Your task to perform on an android device: toggle airplane mode Image 0: 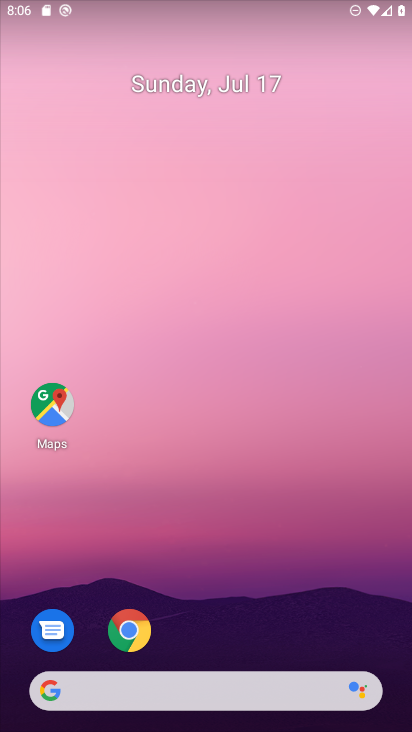
Step 0: drag from (233, 660) to (227, 217)
Your task to perform on an android device: toggle airplane mode Image 1: 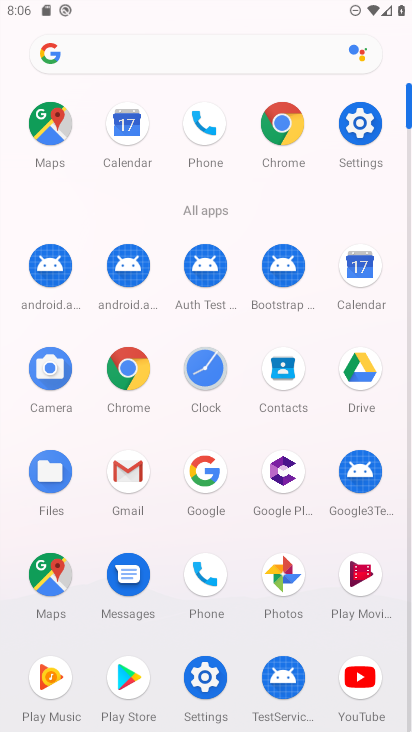
Step 1: click (356, 132)
Your task to perform on an android device: toggle airplane mode Image 2: 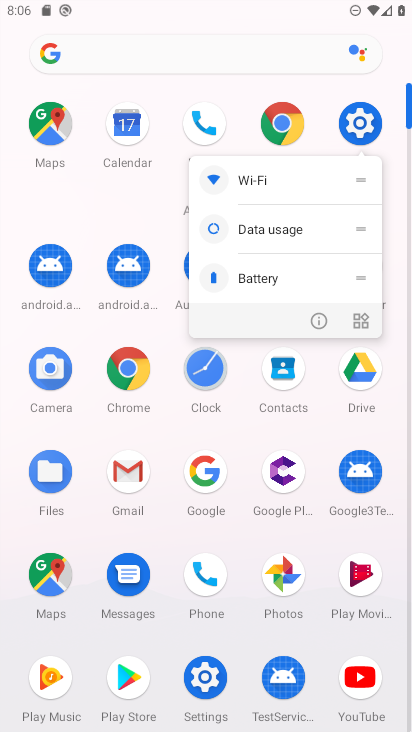
Step 2: click (356, 132)
Your task to perform on an android device: toggle airplane mode Image 3: 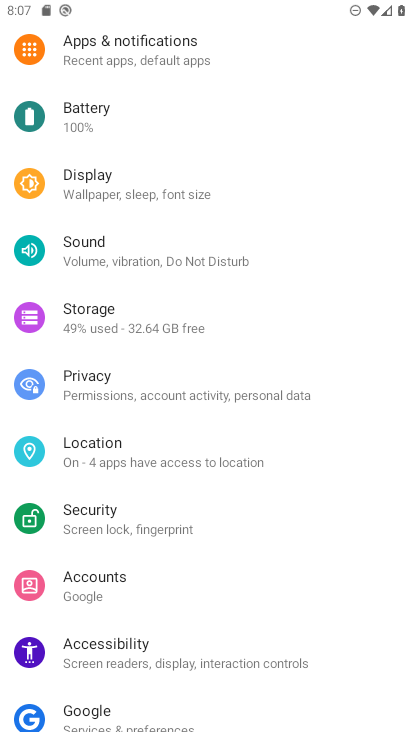
Step 3: drag from (154, 113) to (192, 441)
Your task to perform on an android device: toggle airplane mode Image 4: 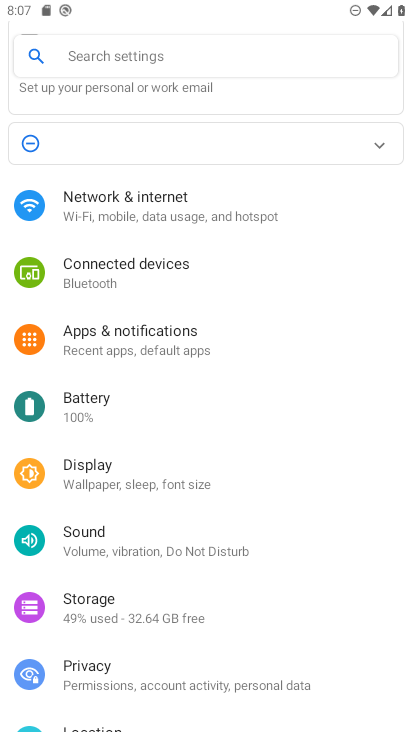
Step 4: click (189, 220)
Your task to perform on an android device: toggle airplane mode Image 5: 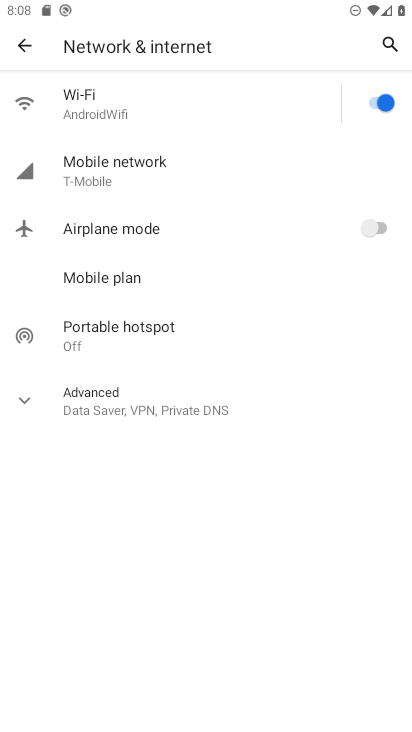
Step 5: click (381, 232)
Your task to perform on an android device: toggle airplane mode Image 6: 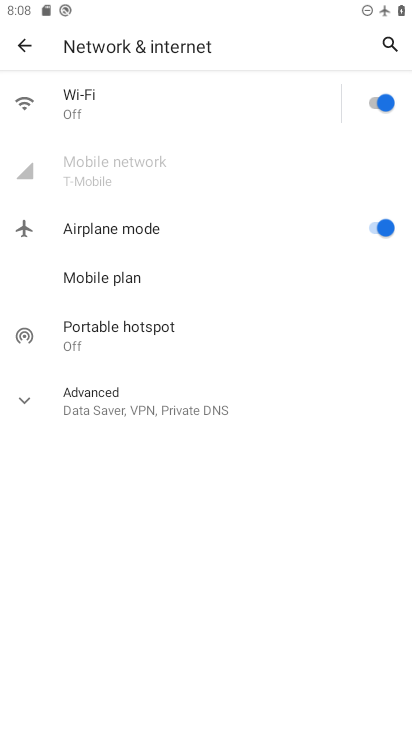
Step 6: task complete